Your task to perform on an android device: turn on the 12-hour format for clock Image 0: 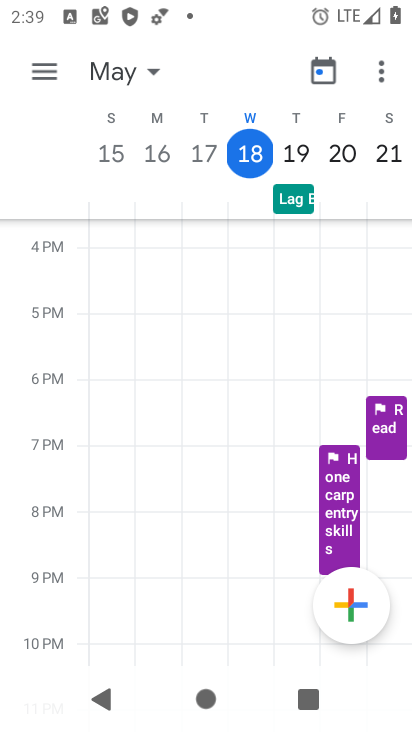
Step 0: press home button
Your task to perform on an android device: turn on the 12-hour format for clock Image 1: 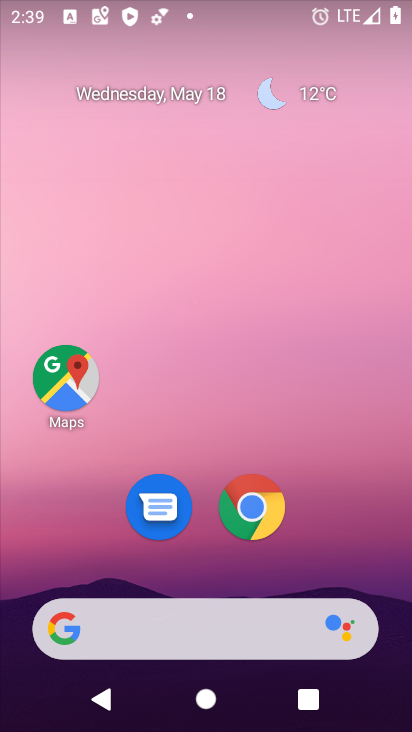
Step 1: drag from (399, 568) to (276, 30)
Your task to perform on an android device: turn on the 12-hour format for clock Image 2: 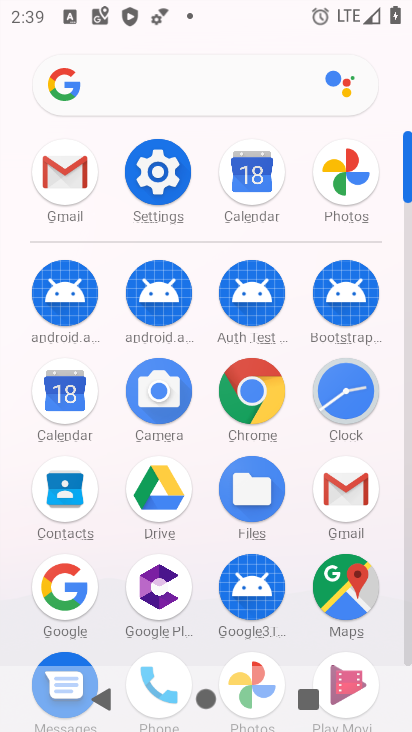
Step 2: click (344, 387)
Your task to perform on an android device: turn on the 12-hour format for clock Image 3: 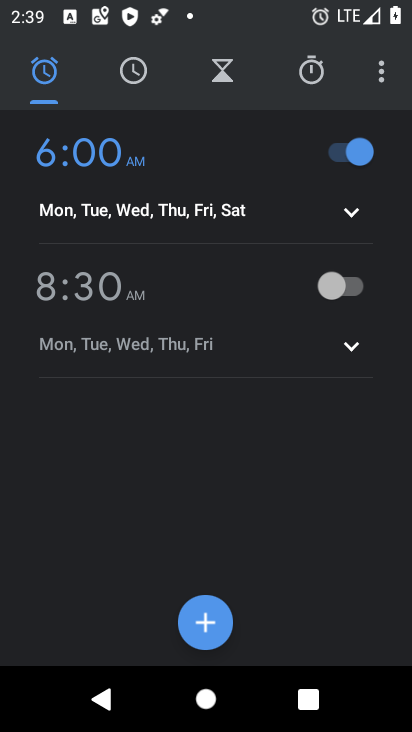
Step 3: click (379, 80)
Your task to perform on an android device: turn on the 12-hour format for clock Image 4: 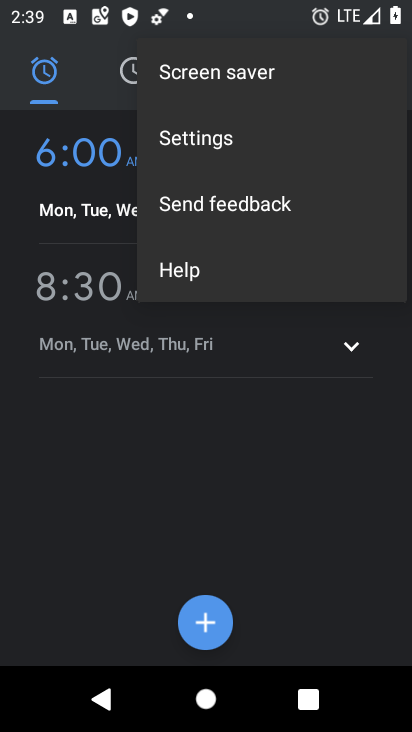
Step 4: click (171, 141)
Your task to perform on an android device: turn on the 12-hour format for clock Image 5: 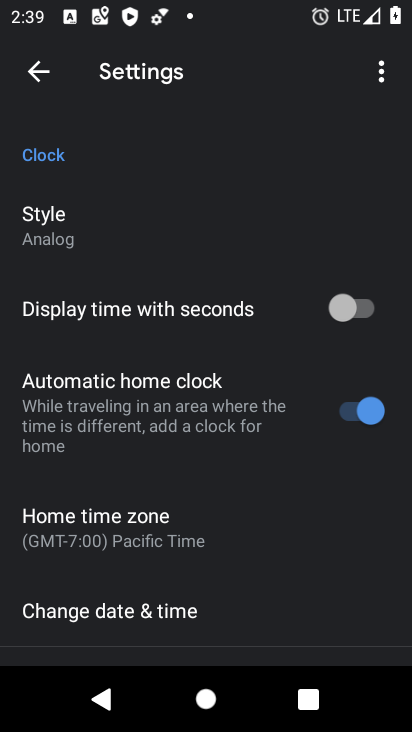
Step 5: drag from (275, 444) to (259, 113)
Your task to perform on an android device: turn on the 12-hour format for clock Image 6: 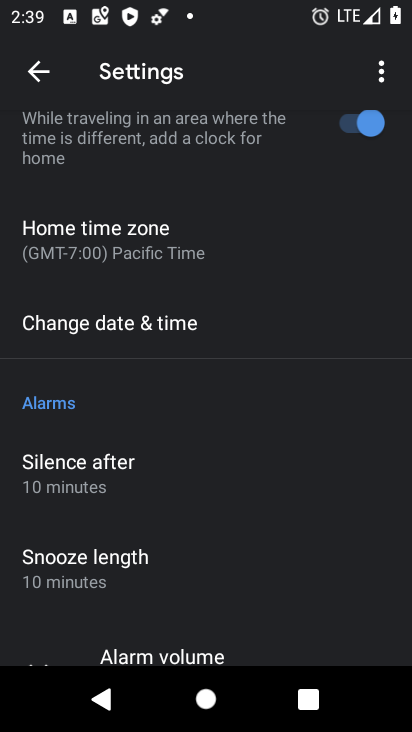
Step 6: click (179, 311)
Your task to perform on an android device: turn on the 12-hour format for clock Image 7: 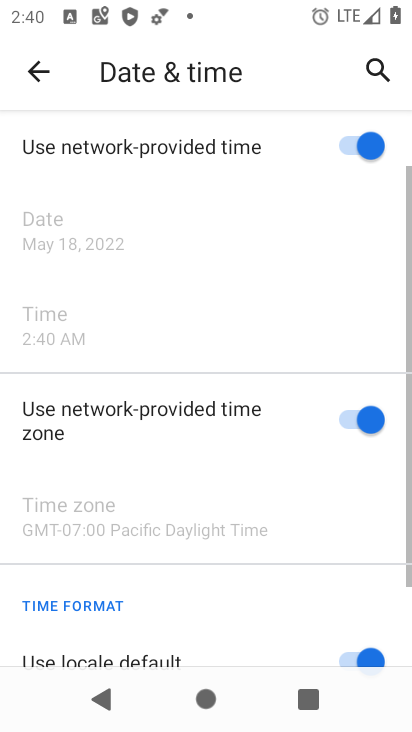
Step 7: task complete